Your task to perform on an android device: clear all cookies in the chrome app Image 0: 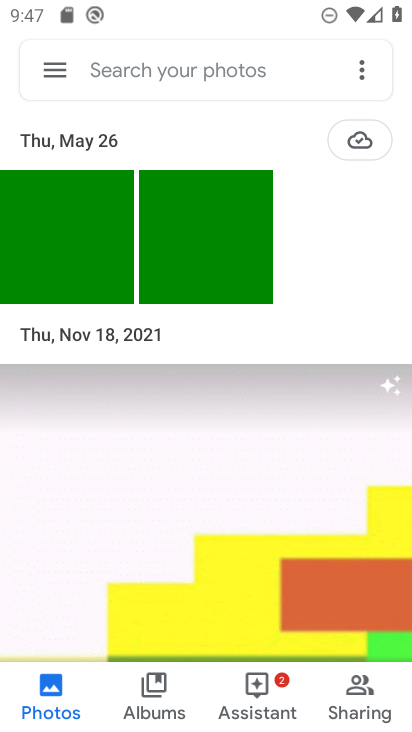
Step 0: press home button
Your task to perform on an android device: clear all cookies in the chrome app Image 1: 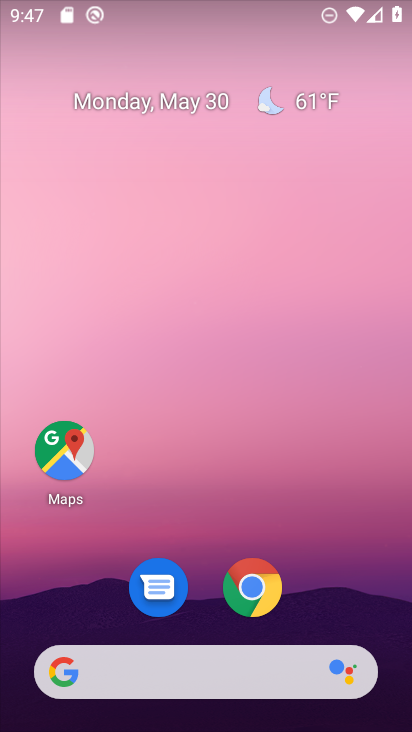
Step 1: click (266, 585)
Your task to perform on an android device: clear all cookies in the chrome app Image 2: 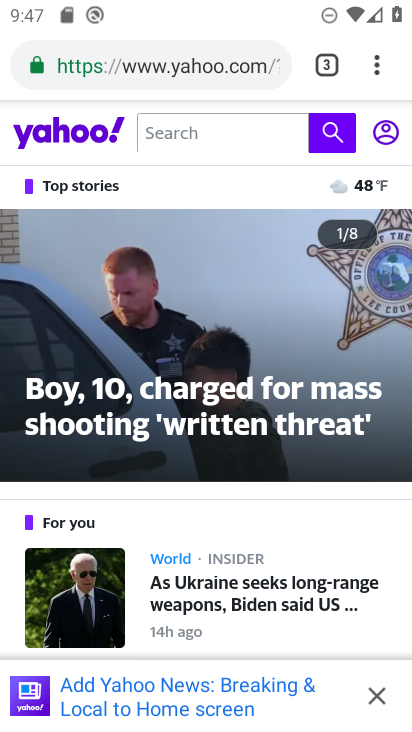
Step 2: click (379, 61)
Your task to perform on an android device: clear all cookies in the chrome app Image 3: 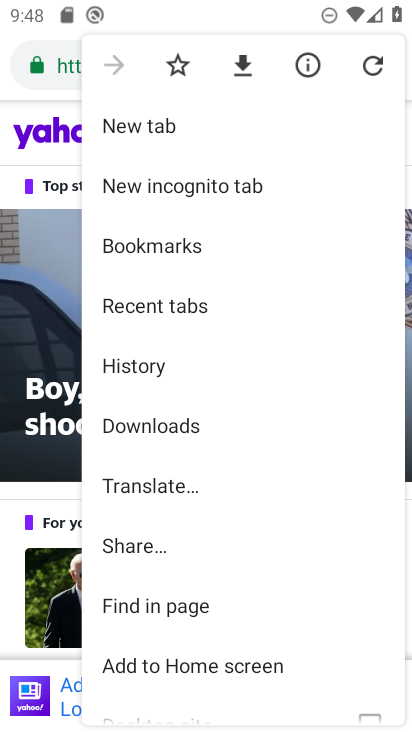
Step 3: drag from (209, 582) to (192, 173)
Your task to perform on an android device: clear all cookies in the chrome app Image 4: 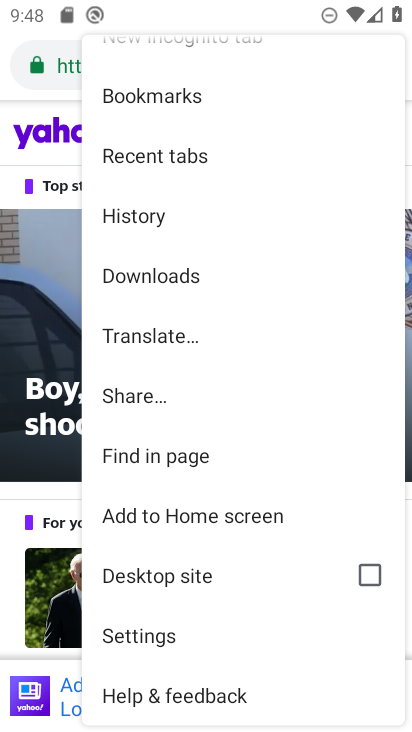
Step 4: click (166, 647)
Your task to perform on an android device: clear all cookies in the chrome app Image 5: 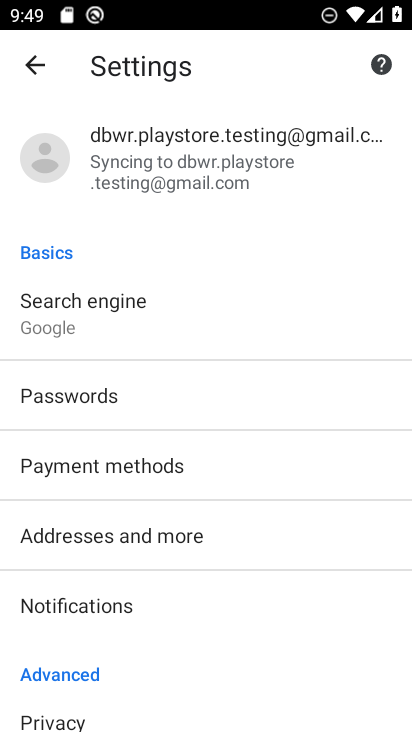
Step 5: click (73, 706)
Your task to perform on an android device: clear all cookies in the chrome app Image 6: 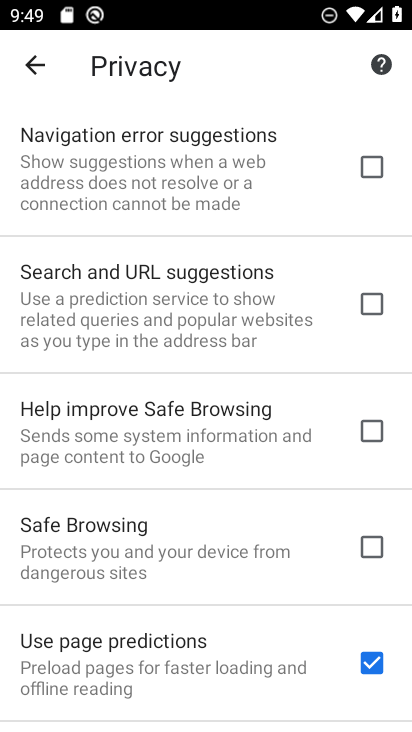
Step 6: drag from (107, 588) to (56, 39)
Your task to perform on an android device: clear all cookies in the chrome app Image 7: 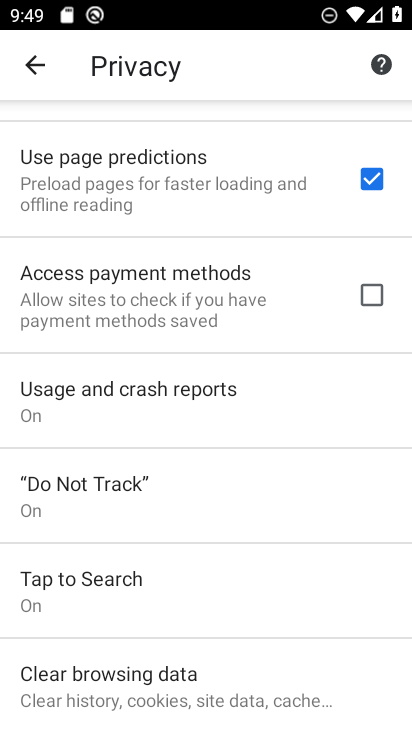
Step 7: click (140, 672)
Your task to perform on an android device: clear all cookies in the chrome app Image 8: 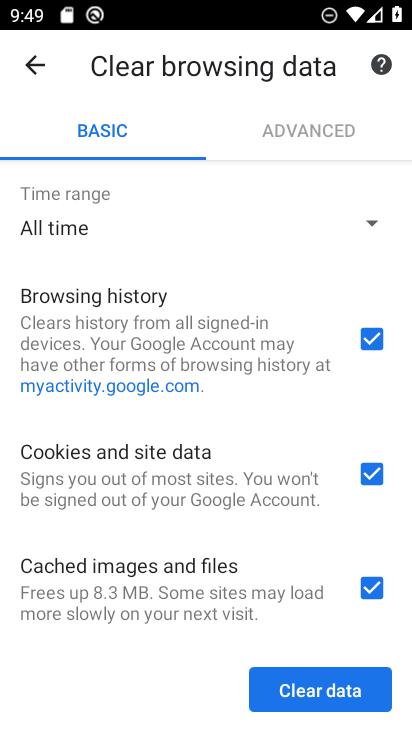
Step 8: click (302, 672)
Your task to perform on an android device: clear all cookies in the chrome app Image 9: 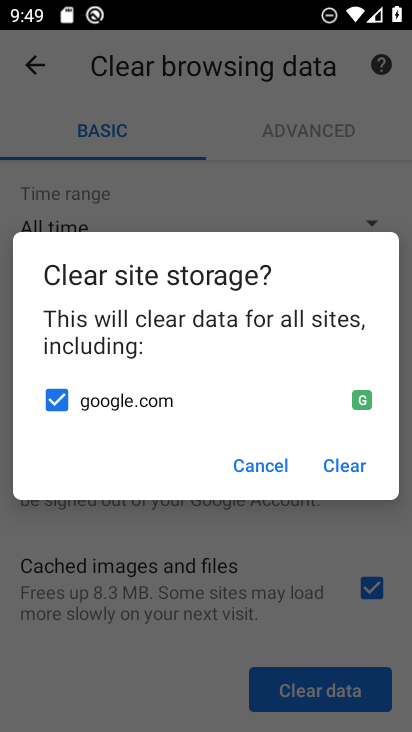
Step 9: click (342, 481)
Your task to perform on an android device: clear all cookies in the chrome app Image 10: 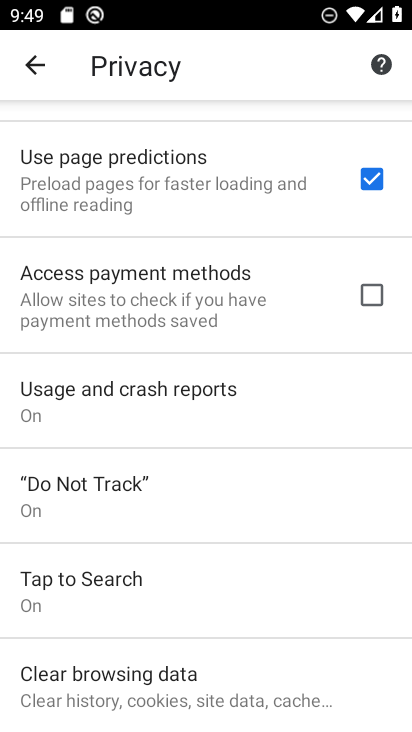
Step 10: drag from (227, 491) to (187, 245)
Your task to perform on an android device: clear all cookies in the chrome app Image 11: 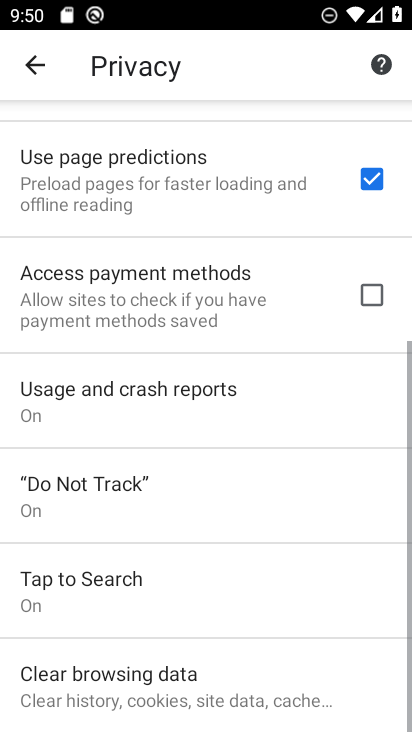
Step 11: click (126, 687)
Your task to perform on an android device: clear all cookies in the chrome app Image 12: 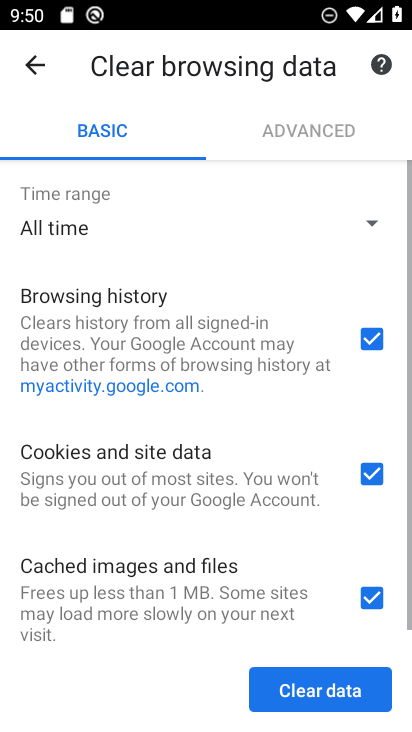
Step 12: click (295, 681)
Your task to perform on an android device: clear all cookies in the chrome app Image 13: 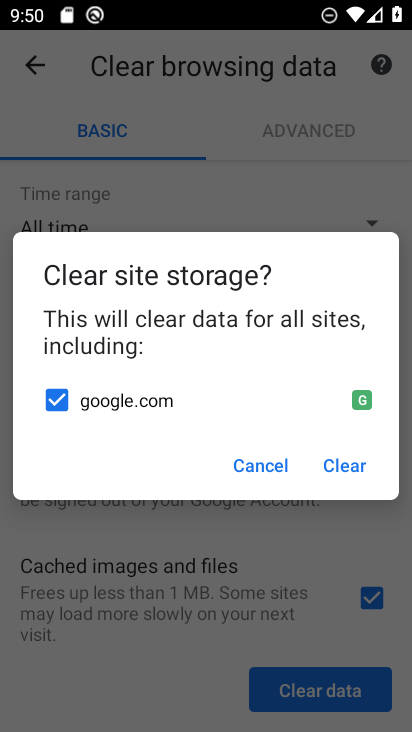
Step 13: task complete